Your task to perform on an android device: Add "jbl flip 4" to the cart on walmart.com, then select checkout. Image 0: 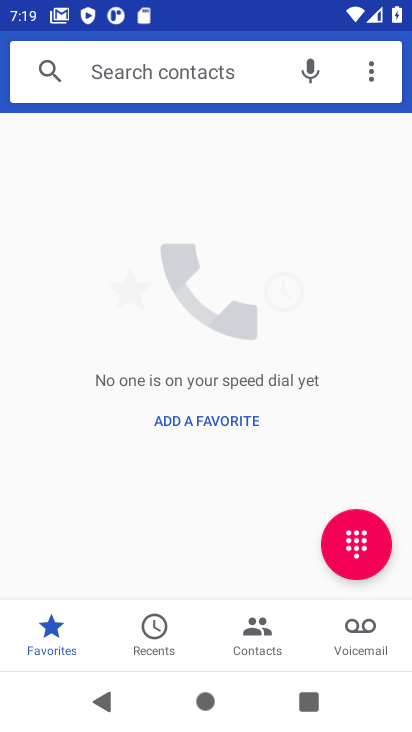
Step 0: press home button
Your task to perform on an android device: Add "jbl flip 4" to the cart on walmart.com, then select checkout. Image 1: 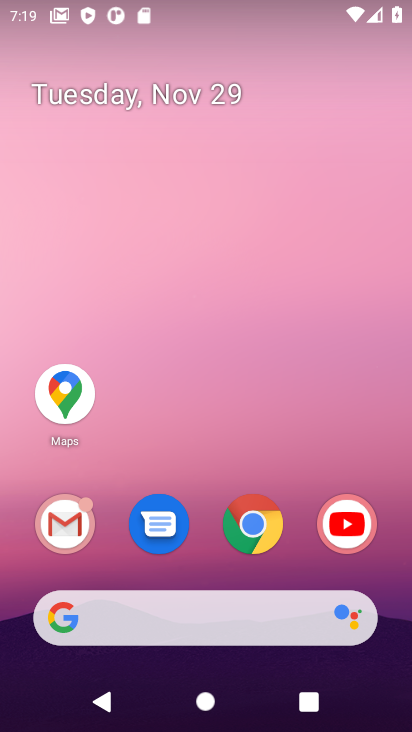
Step 1: click (264, 517)
Your task to perform on an android device: Add "jbl flip 4" to the cart on walmart.com, then select checkout. Image 2: 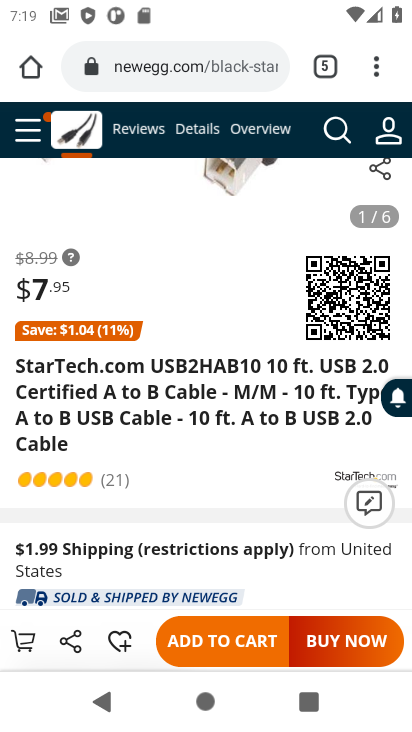
Step 2: click (170, 75)
Your task to perform on an android device: Add "jbl flip 4" to the cart on walmart.com, then select checkout. Image 3: 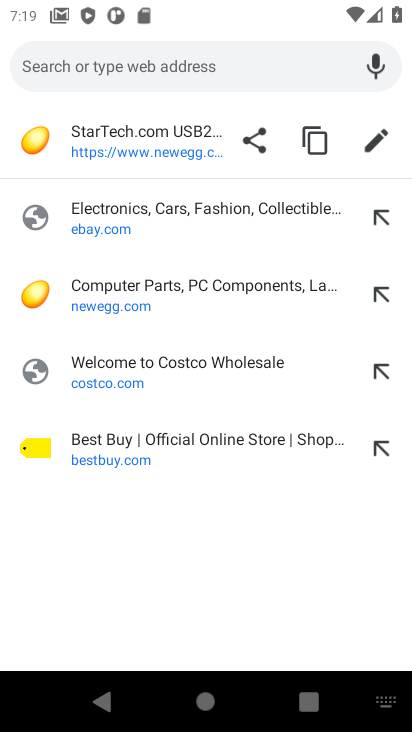
Step 3: type "walmart.com"
Your task to perform on an android device: Add "jbl flip 4" to the cart on walmart.com, then select checkout. Image 4: 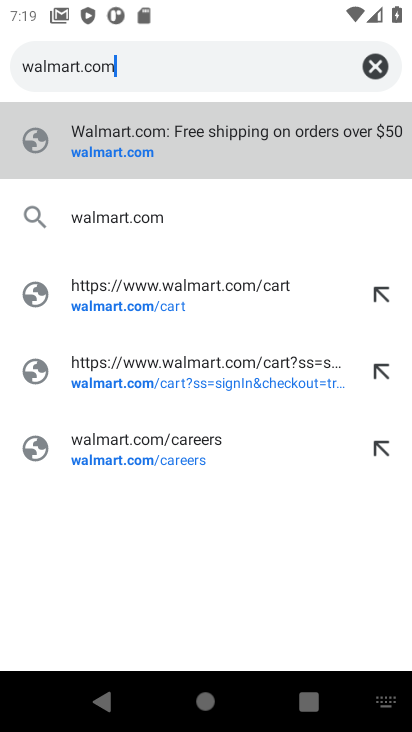
Step 4: click (113, 155)
Your task to perform on an android device: Add "jbl flip 4" to the cart on walmart.com, then select checkout. Image 5: 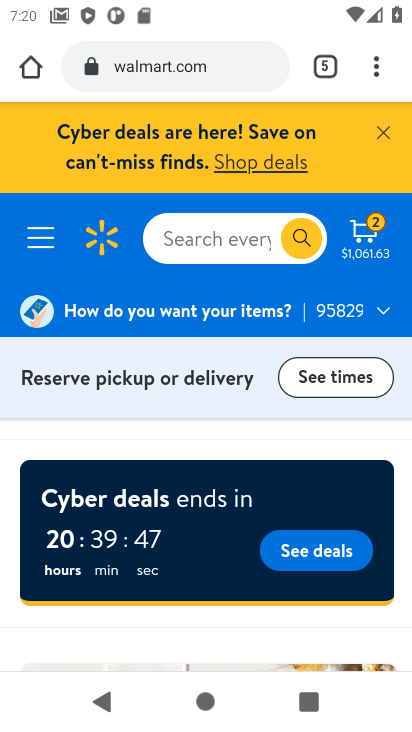
Step 5: click (188, 234)
Your task to perform on an android device: Add "jbl flip 4" to the cart on walmart.com, then select checkout. Image 6: 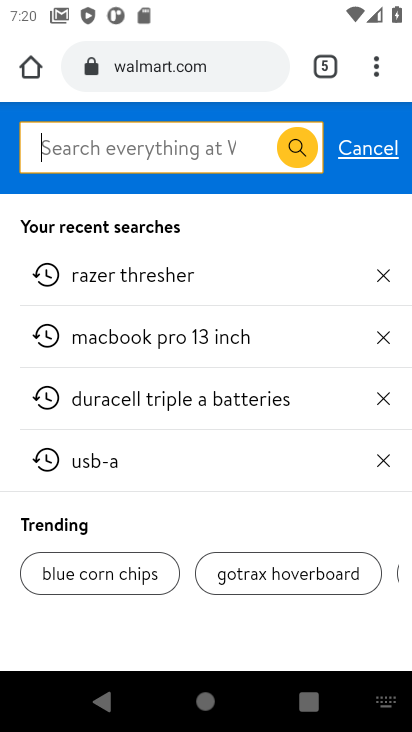
Step 6: type "usb-b"
Your task to perform on an android device: Add "jbl flip 4" to the cart on walmart.com, then select checkout. Image 7: 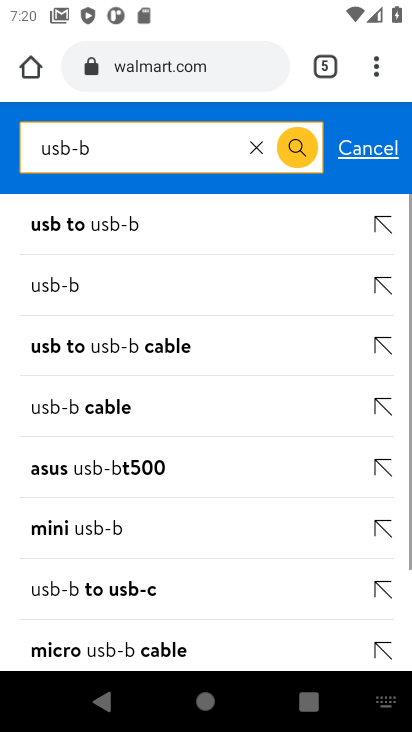
Step 7: click (253, 149)
Your task to perform on an android device: Add "jbl flip 4" to the cart on walmart.com, then select checkout. Image 8: 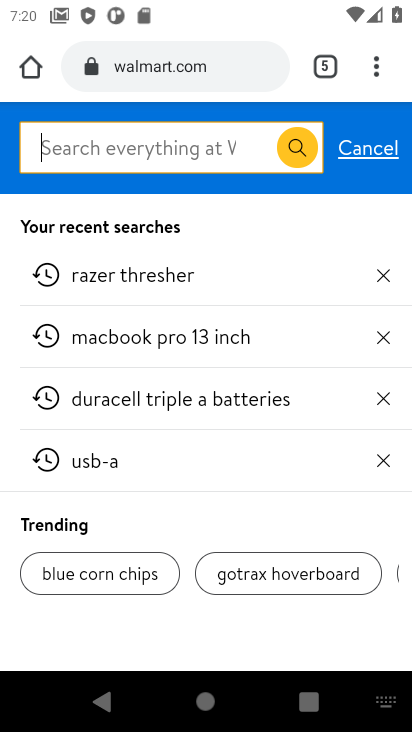
Step 8: type "jbl flip 4"
Your task to perform on an android device: Add "jbl flip 4" to the cart on walmart.com, then select checkout. Image 9: 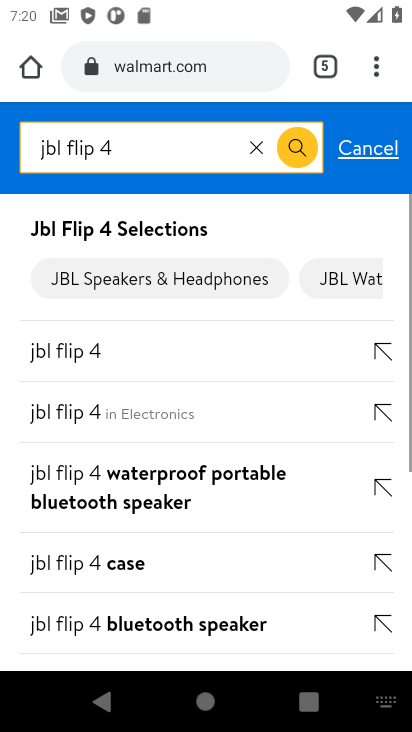
Step 9: click (50, 352)
Your task to perform on an android device: Add "jbl flip 4" to the cart on walmart.com, then select checkout. Image 10: 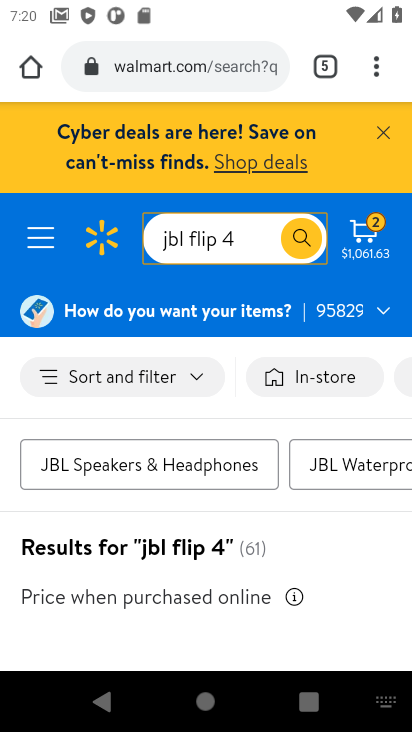
Step 10: drag from (149, 583) to (150, 236)
Your task to perform on an android device: Add "jbl flip 4" to the cart on walmart.com, then select checkout. Image 11: 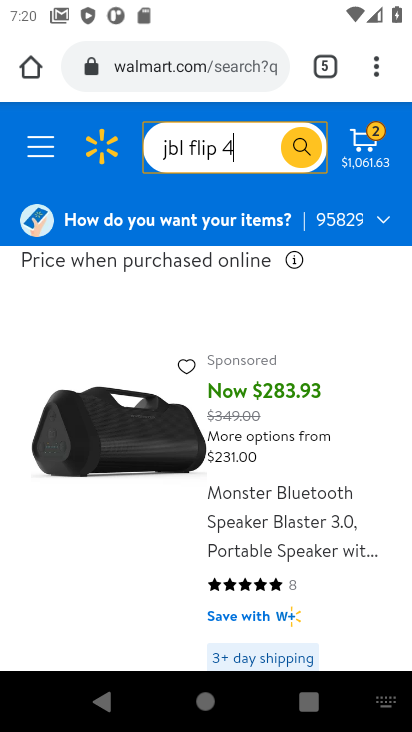
Step 11: drag from (122, 475) to (128, 345)
Your task to perform on an android device: Add "jbl flip 4" to the cart on walmart.com, then select checkout. Image 12: 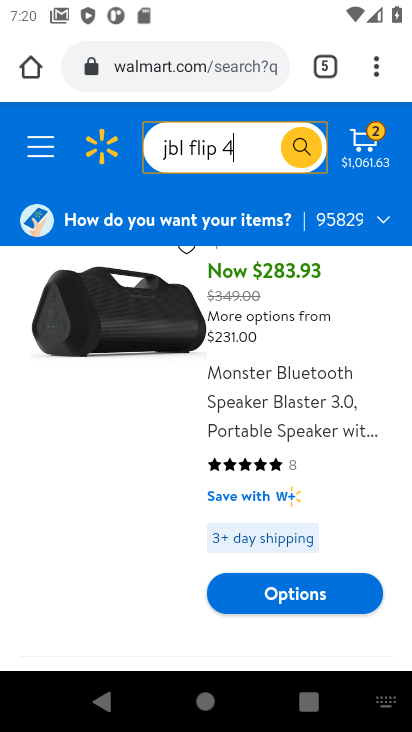
Step 12: drag from (127, 534) to (124, 305)
Your task to perform on an android device: Add "jbl flip 4" to the cart on walmart.com, then select checkout. Image 13: 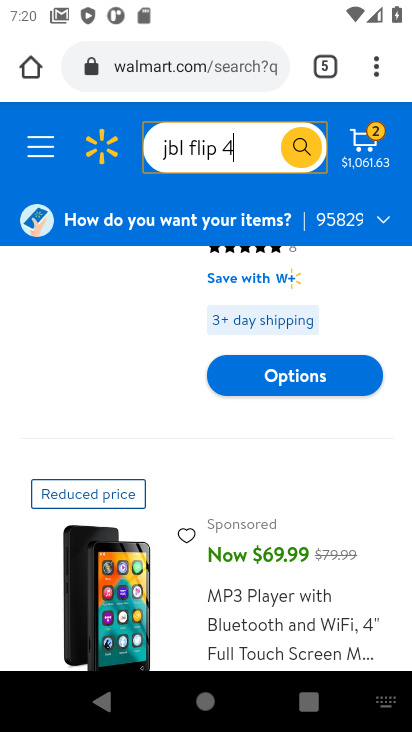
Step 13: drag from (108, 591) to (116, 281)
Your task to perform on an android device: Add "jbl flip 4" to the cart on walmart.com, then select checkout. Image 14: 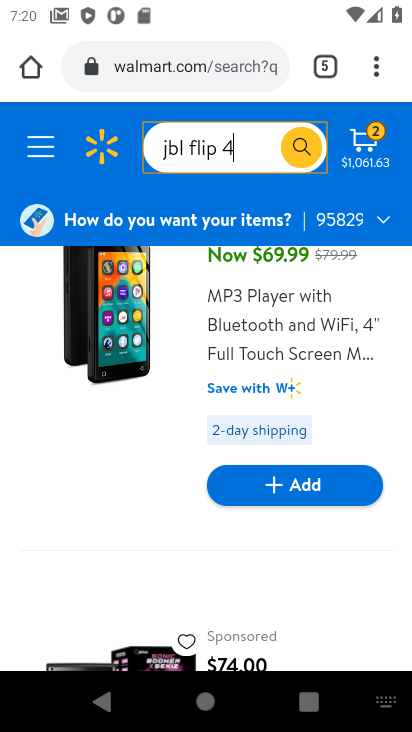
Step 14: drag from (121, 543) to (108, 290)
Your task to perform on an android device: Add "jbl flip 4" to the cart on walmart.com, then select checkout. Image 15: 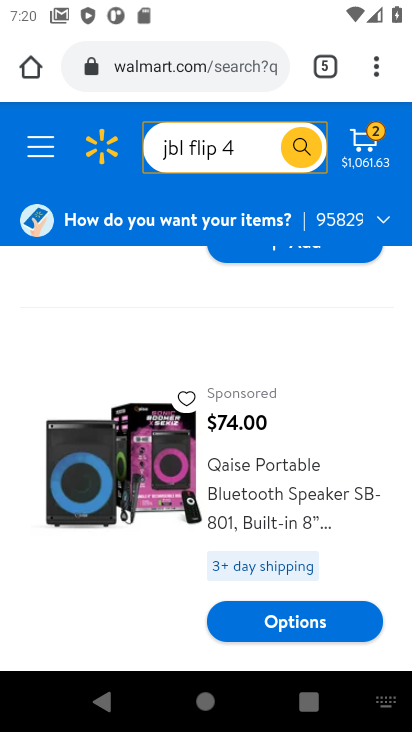
Step 15: drag from (104, 519) to (104, 320)
Your task to perform on an android device: Add "jbl flip 4" to the cart on walmart.com, then select checkout. Image 16: 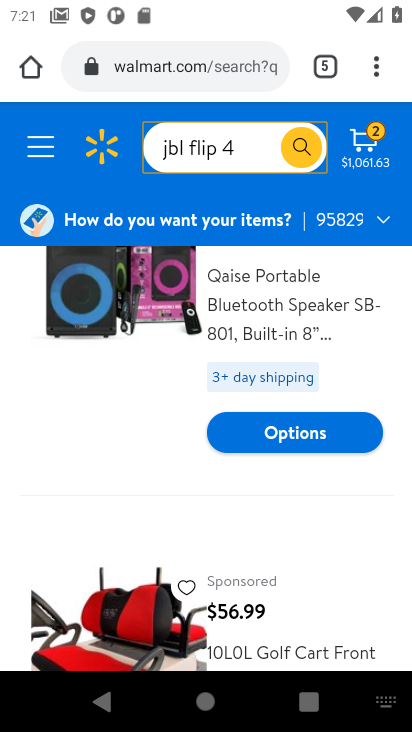
Step 16: drag from (87, 526) to (89, 387)
Your task to perform on an android device: Add "jbl flip 4" to the cart on walmart.com, then select checkout. Image 17: 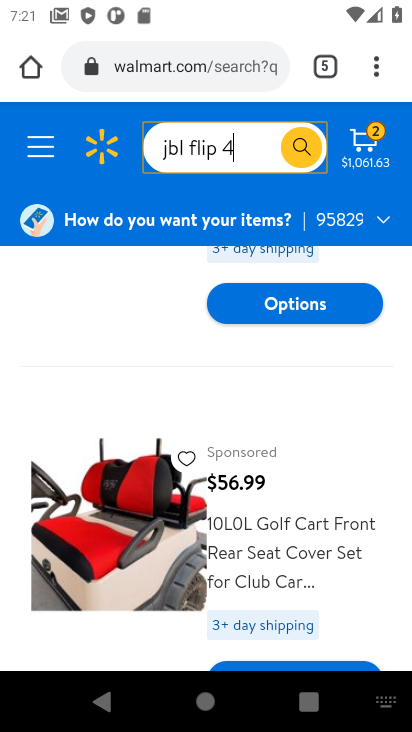
Step 17: drag from (92, 539) to (95, 351)
Your task to perform on an android device: Add "jbl flip 4" to the cart on walmart.com, then select checkout. Image 18: 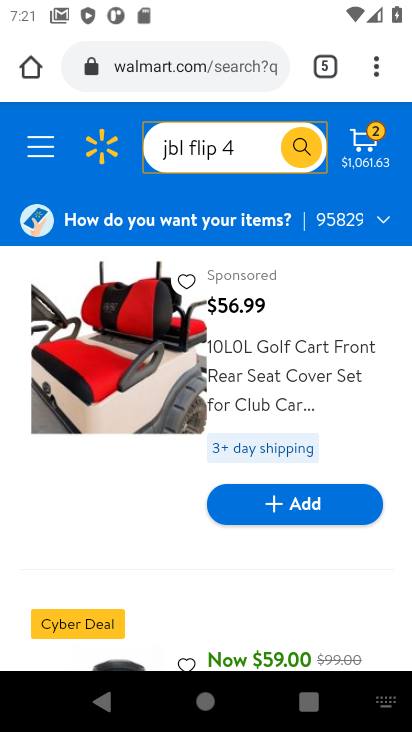
Step 18: drag from (120, 501) to (139, 262)
Your task to perform on an android device: Add "jbl flip 4" to the cart on walmart.com, then select checkout. Image 19: 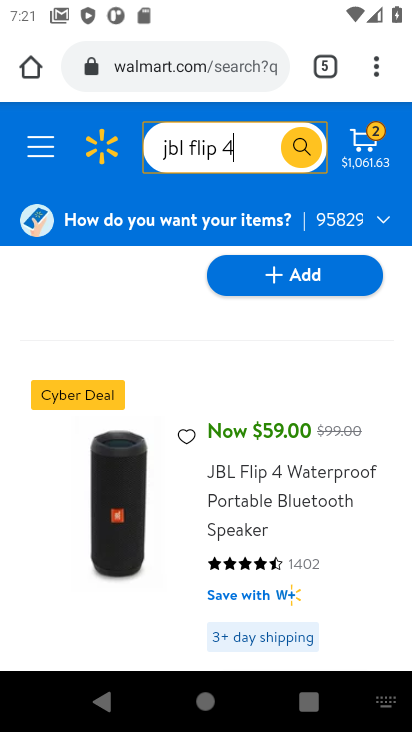
Step 19: drag from (155, 521) to (167, 336)
Your task to perform on an android device: Add "jbl flip 4" to the cart on walmart.com, then select checkout. Image 20: 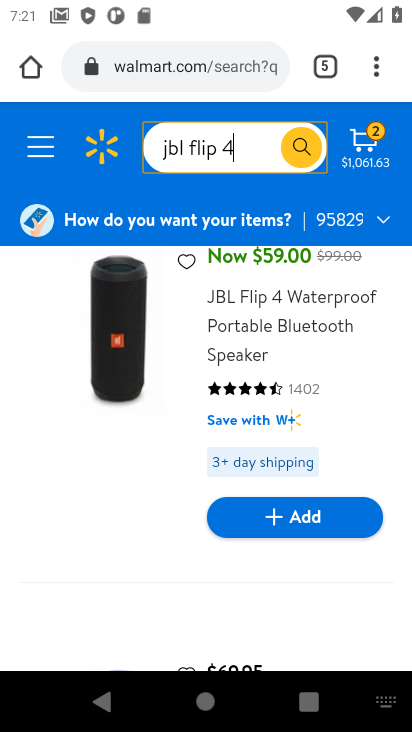
Step 20: click (300, 512)
Your task to perform on an android device: Add "jbl flip 4" to the cart on walmart.com, then select checkout. Image 21: 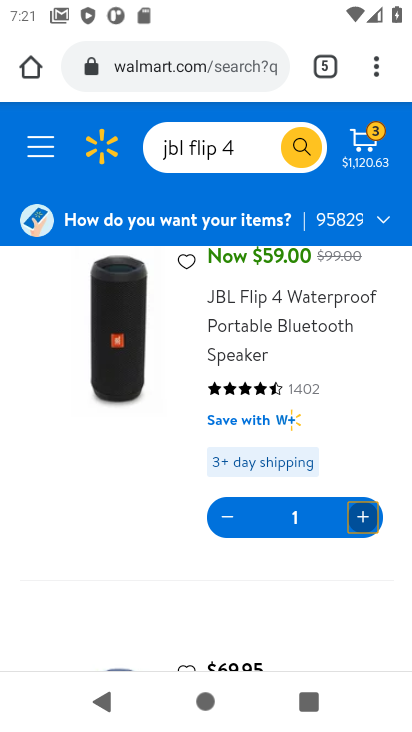
Step 21: click (366, 149)
Your task to perform on an android device: Add "jbl flip 4" to the cart on walmart.com, then select checkout. Image 22: 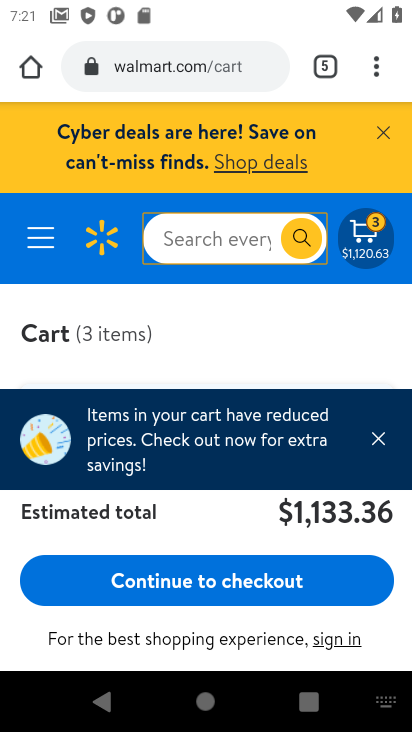
Step 22: click (182, 587)
Your task to perform on an android device: Add "jbl flip 4" to the cart on walmart.com, then select checkout. Image 23: 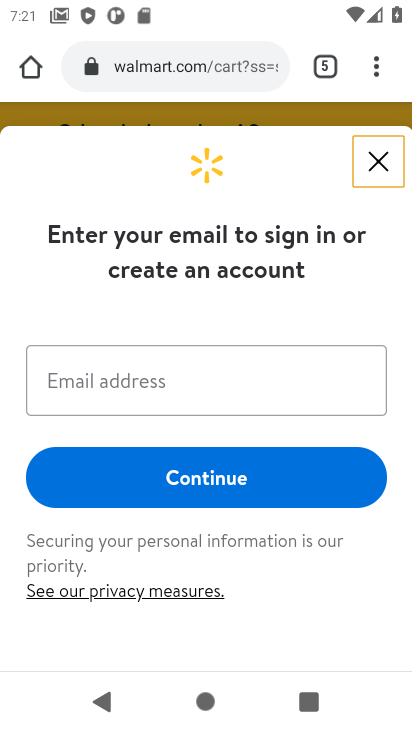
Step 23: task complete